Your task to perform on an android device: Show me the alarms in the clock app Image 0: 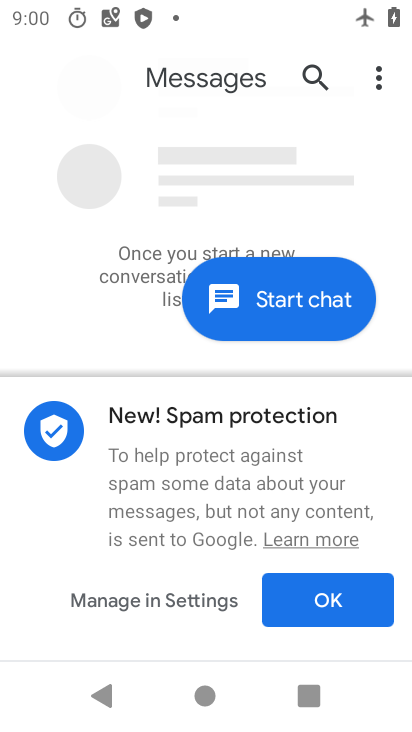
Step 0: press home button
Your task to perform on an android device: Show me the alarms in the clock app Image 1: 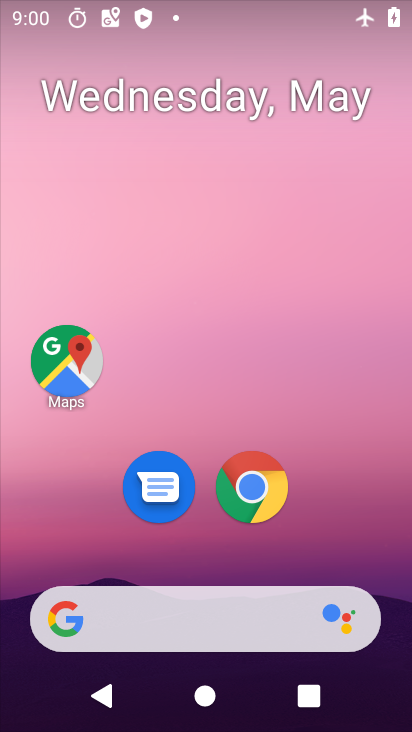
Step 1: drag from (203, 542) to (227, 217)
Your task to perform on an android device: Show me the alarms in the clock app Image 2: 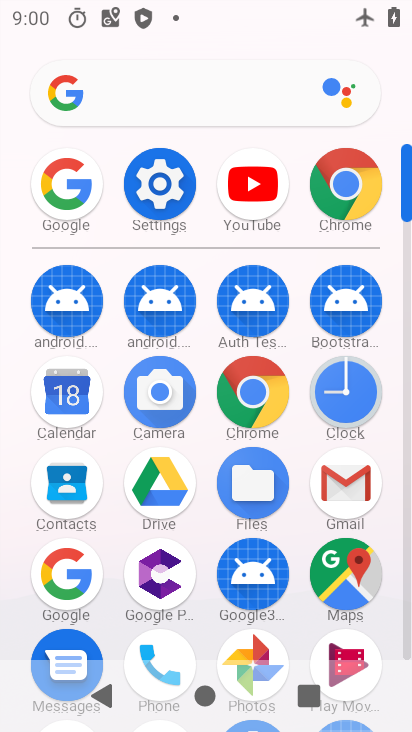
Step 2: click (334, 386)
Your task to perform on an android device: Show me the alarms in the clock app Image 3: 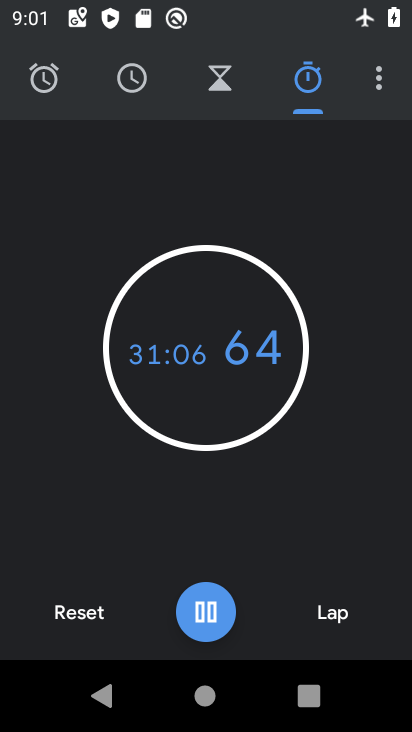
Step 3: click (47, 62)
Your task to perform on an android device: Show me the alarms in the clock app Image 4: 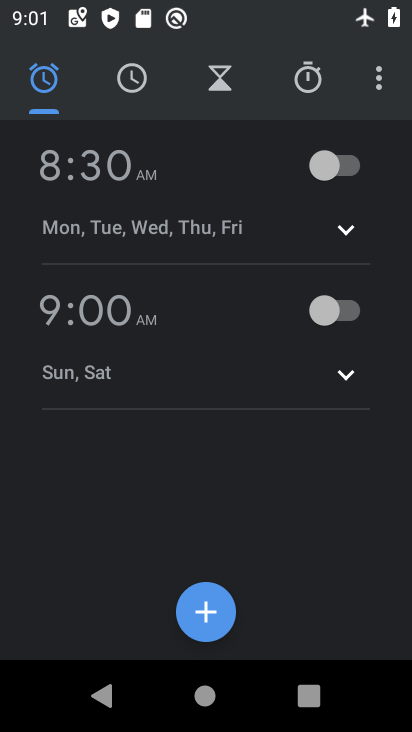
Step 4: task complete